Your task to perform on an android device: turn off wifi Image 0: 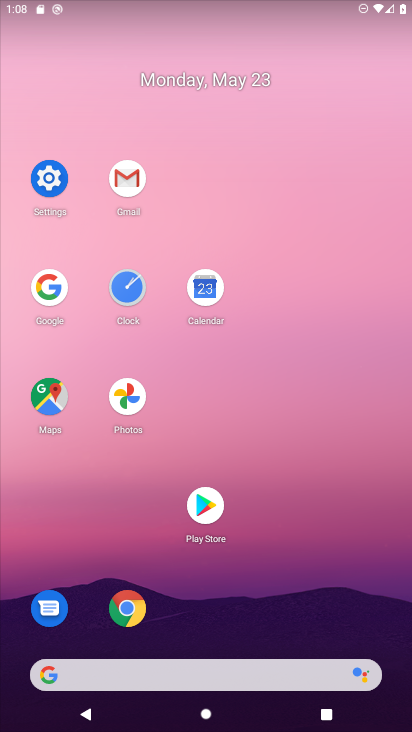
Step 0: click (59, 183)
Your task to perform on an android device: turn off wifi Image 1: 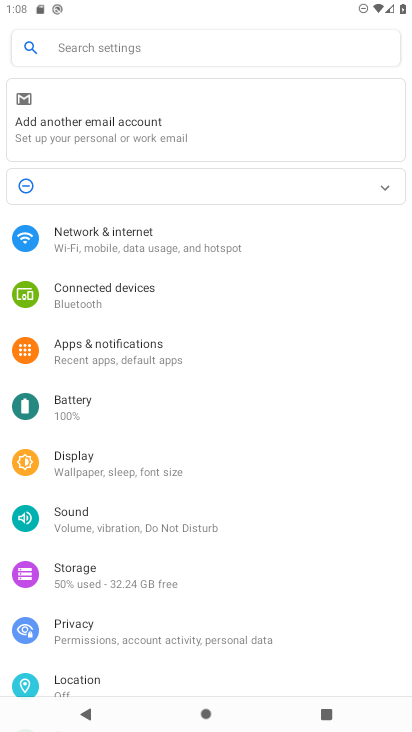
Step 1: click (182, 245)
Your task to perform on an android device: turn off wifi Image 2: 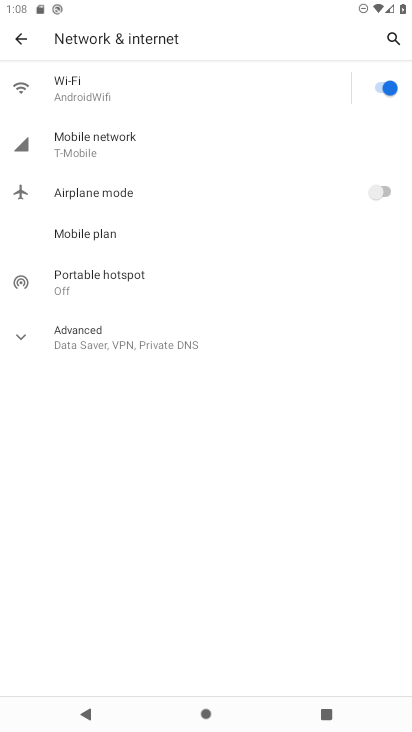
Step 2: click (395, 80)
Your task to perform on an android device: turn off wifi Image 3: 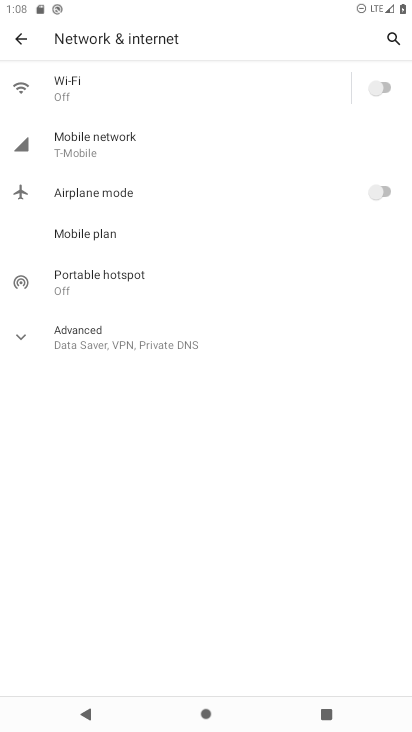
Step 3: task complete